Your task to perform on an android device: Open Amazon Image 0: 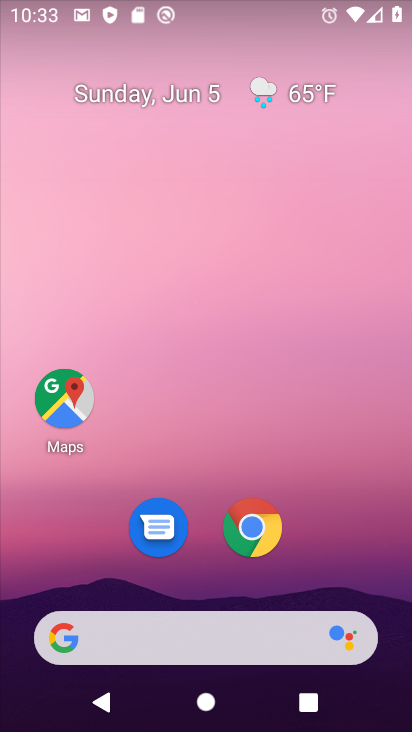
Step 0: click (249, 529)
Your task to perform on an android device: Open Amazon Image 1: 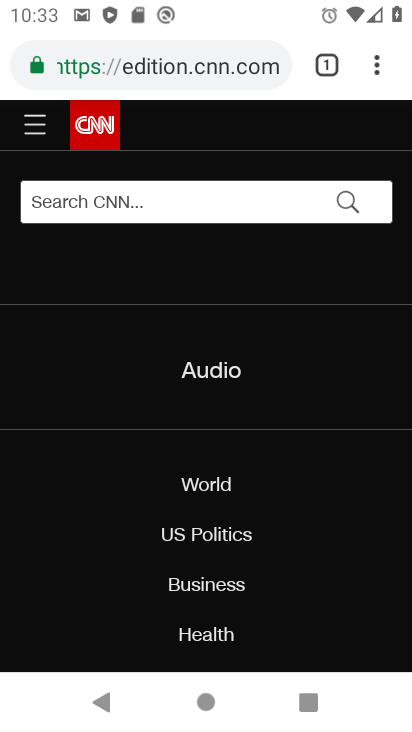
Step 1: click (324, 69)
Your task to perform on an android device: Open Amazon Image 2: 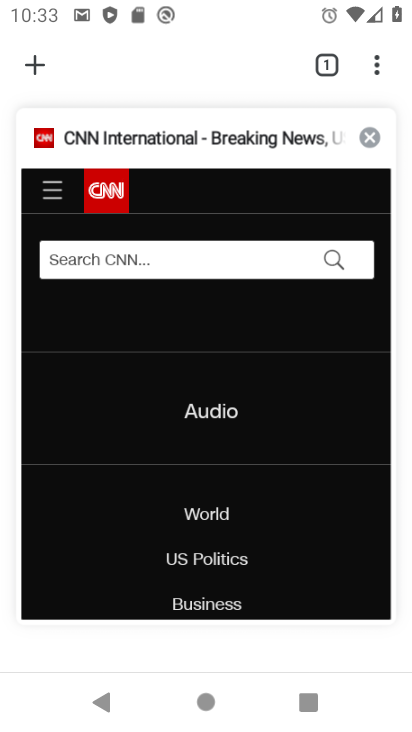
Step 2: click (366, 129)
Your task to perform on an android device: Open Amazon Image 3: 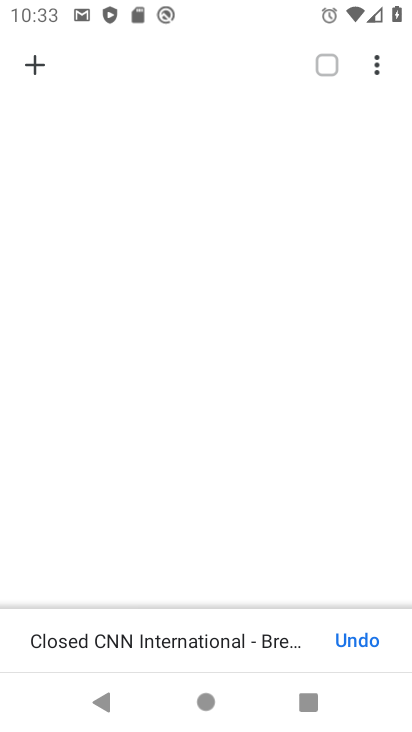
Step 3: click (37, 68)
Your task to perform on an android device: Open Amazon Image 4: 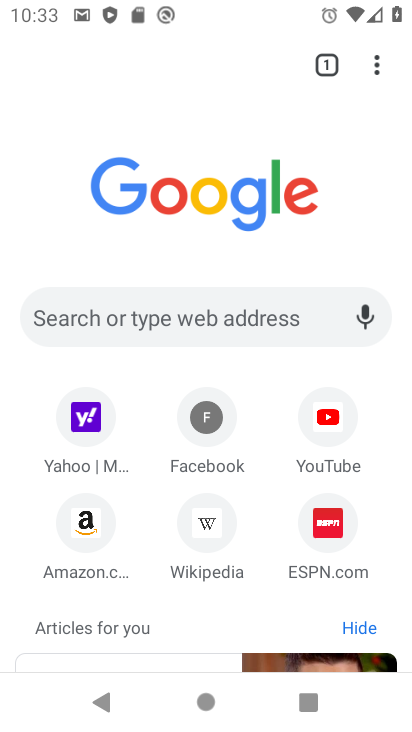
Step 4: click (73, 522)
Your task to perform on an android device: Open Amazon Image 5: 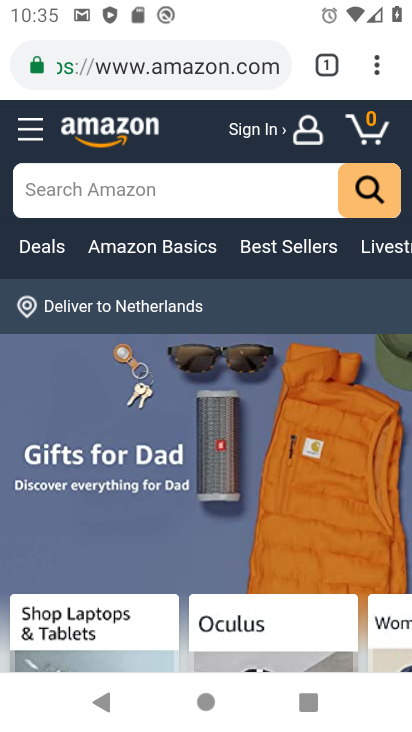
Step 5: task complete